Your task to perform on an android device: Go to privacy settings Image 0: 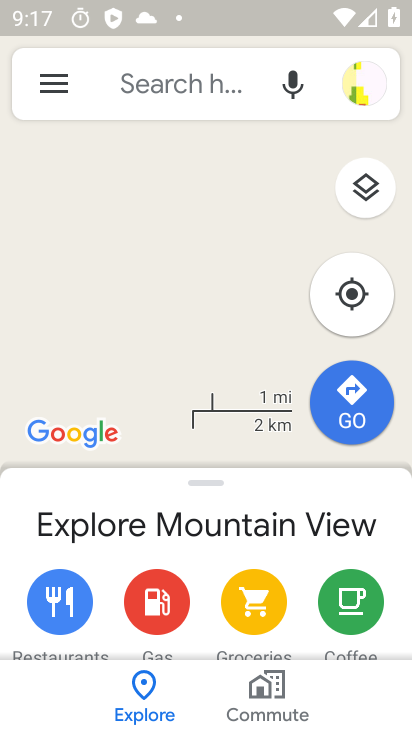
Step 0: press home button
Your task to perform on an android device: Go to privacy settings Image 1: 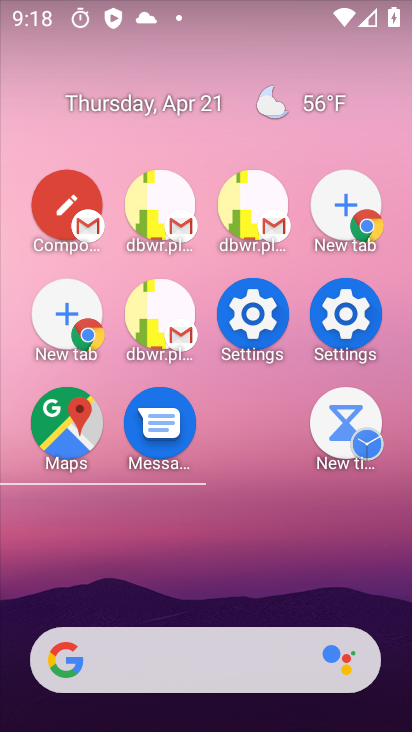
Step 1: drag from (282, 699) to (229, 7)
Your task to perform on an android device: Go to privacy settings Image 2: 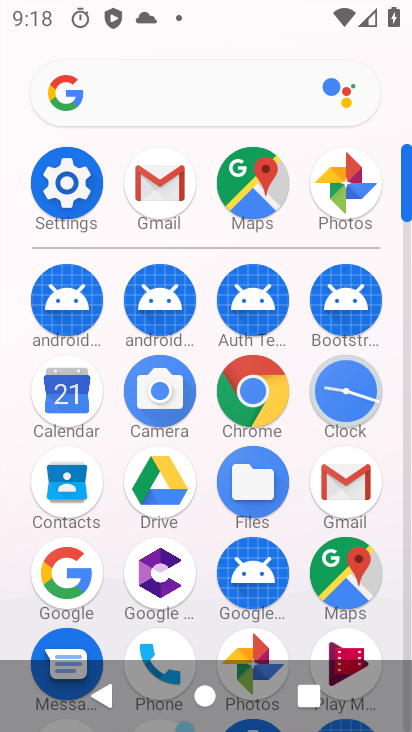
Step 2: drag from (264, 522) to (230, 42)
Your task to perform on an android device: Go to privacy settings Image 3: 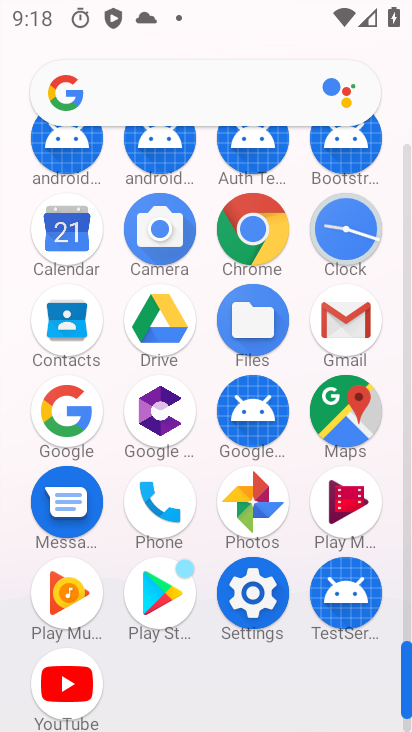
Step 3: click (244, 595)
Your task to perform on an android device: Go to privacy settings Image 4: 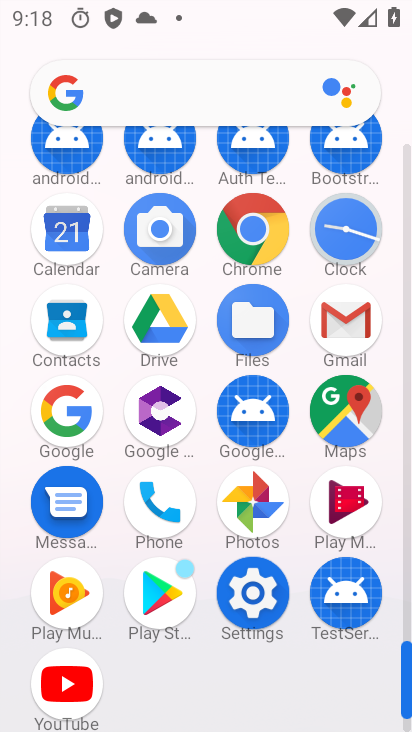
Step 4: click (248, 593)
Your task to perform on an android device: Go to privacy settings Image 5: 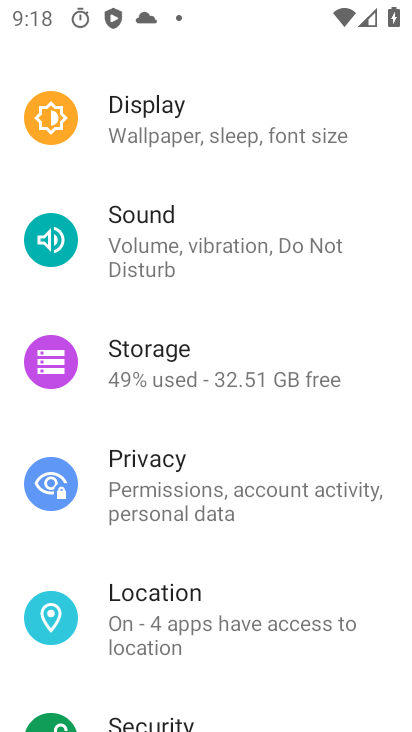
Step 5: click (157, 488)
Your task to perform on an android device: Go to privacy settings Image 6: 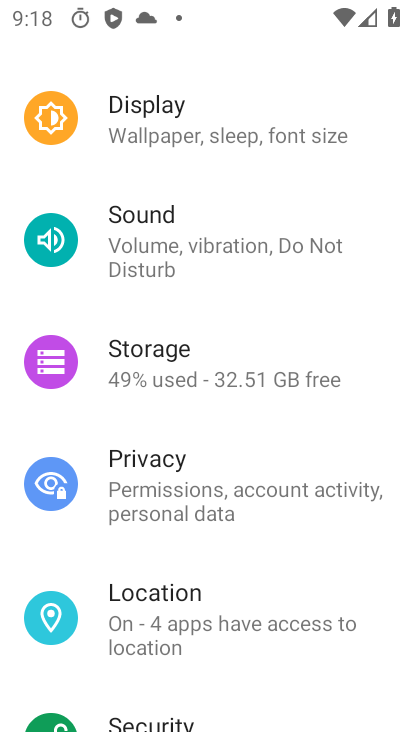
Step 6: click (158, 489)
Your task to perform on an android device: Go to privacy settings Image 7: 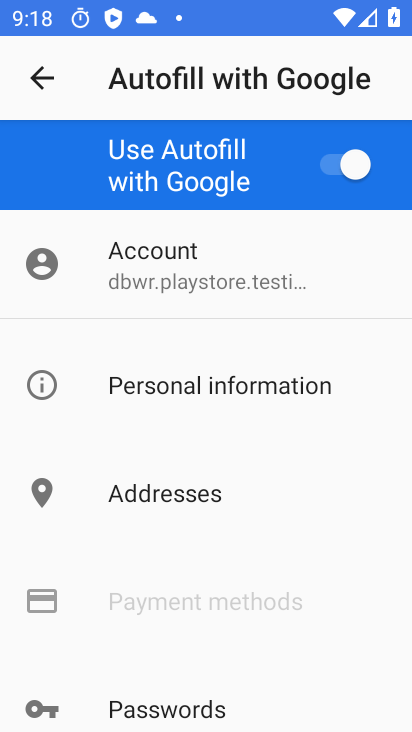
Step 7: click (44, 75)
Your task to perform on an android device: Go to privacy settings Image 8: 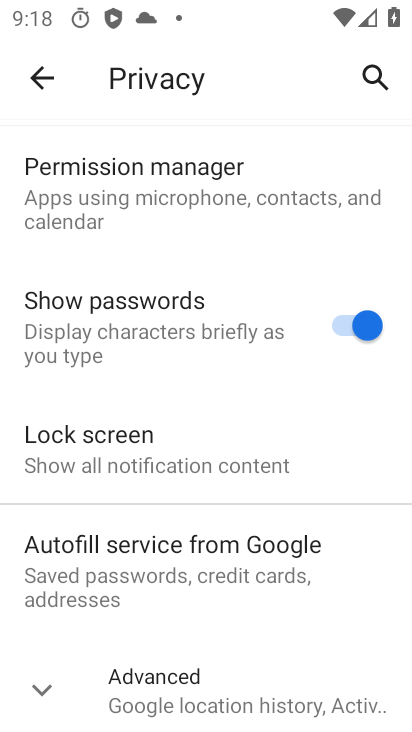
Step 8: task complete